Your task to perform on an android device: open app "Spotify" (install if not already installed) and go to login screen Image 0: 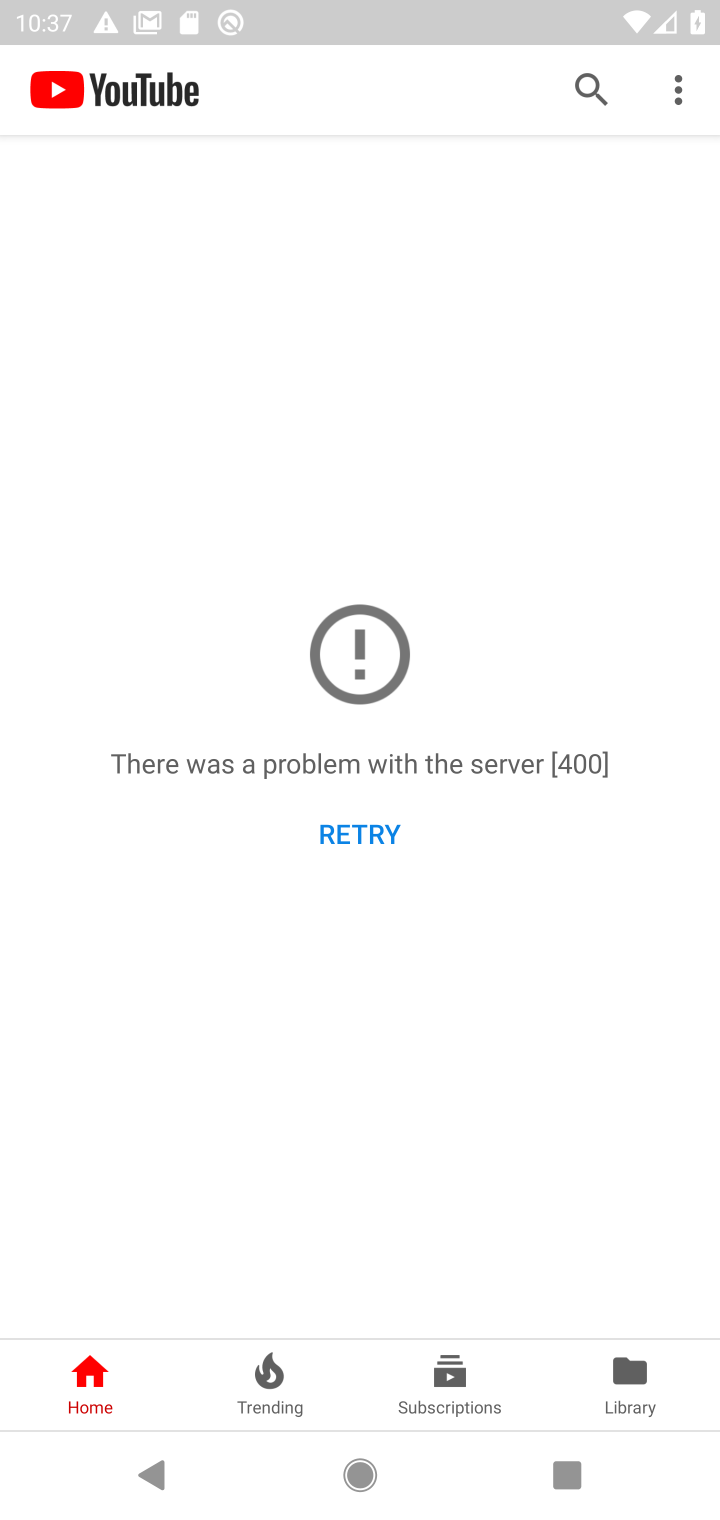
Step 0: press home button
Your task to perform on an android device: open app "Spotify" (install if not already installed) and go to login screen Image 1: 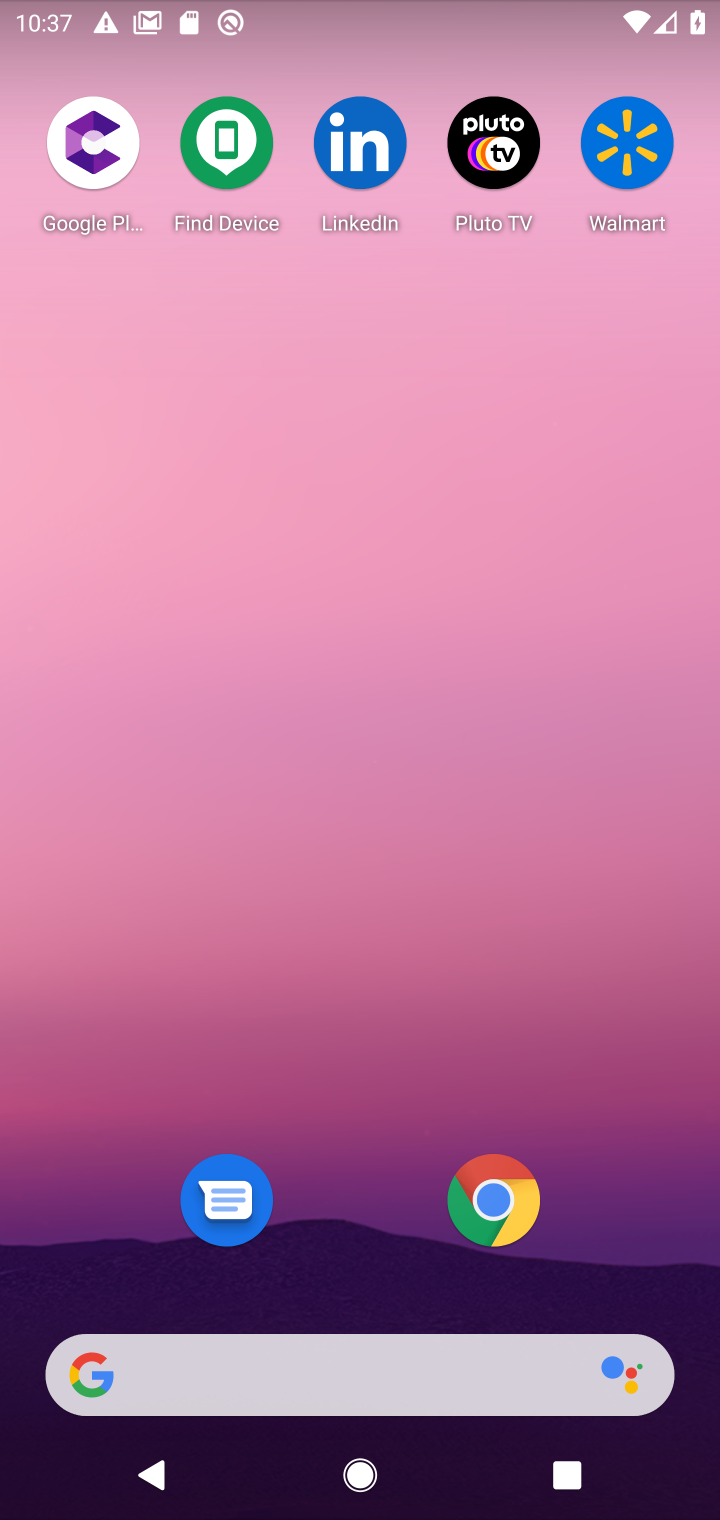
Step 1: drag from (360, 1291) to (288, 65)
Your task to perform on an android device: open app "Spotify" (install if not already installed) and go to login screen Image 2: 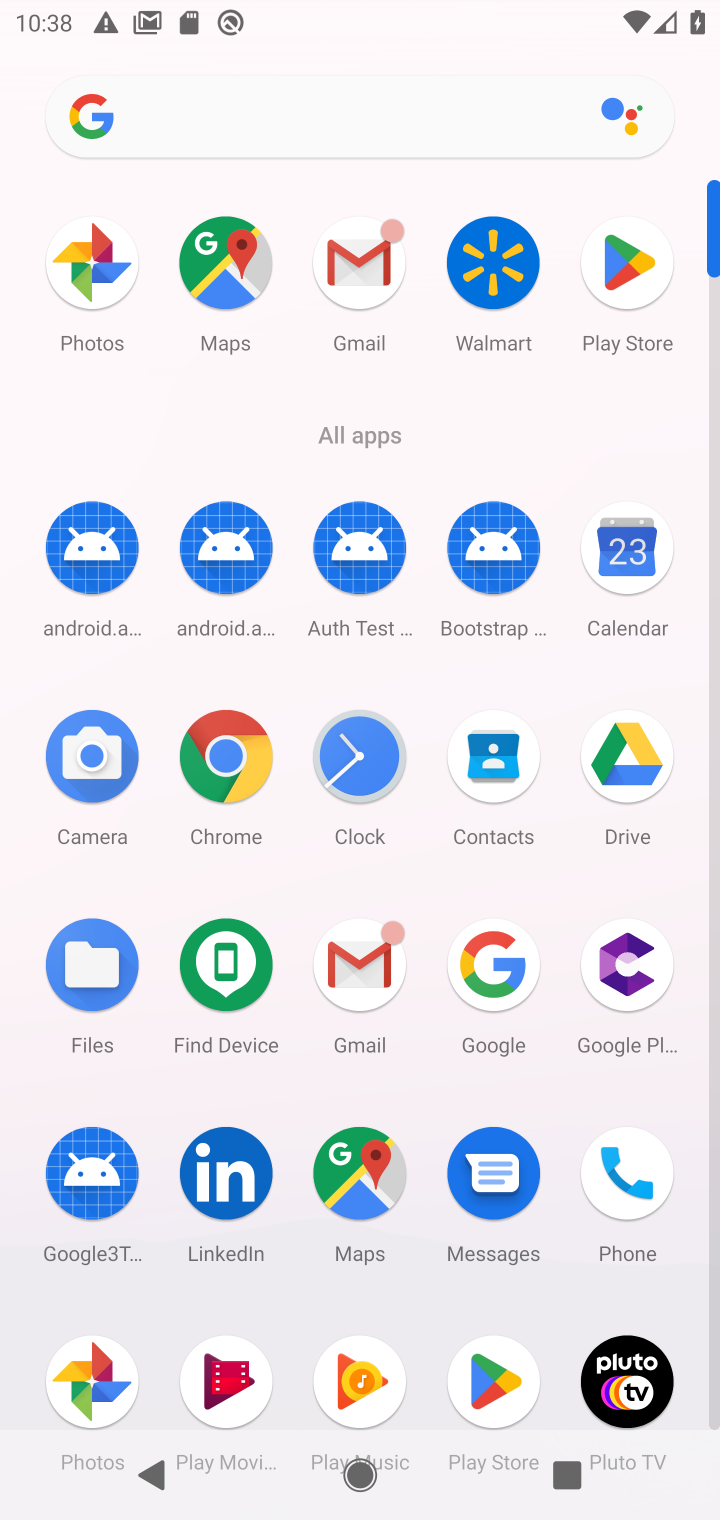
Step 2: click (499, 1362)
Your task to perform on an android device: open app "Spotify" (install if not already installed) and go to login screen Image 3: 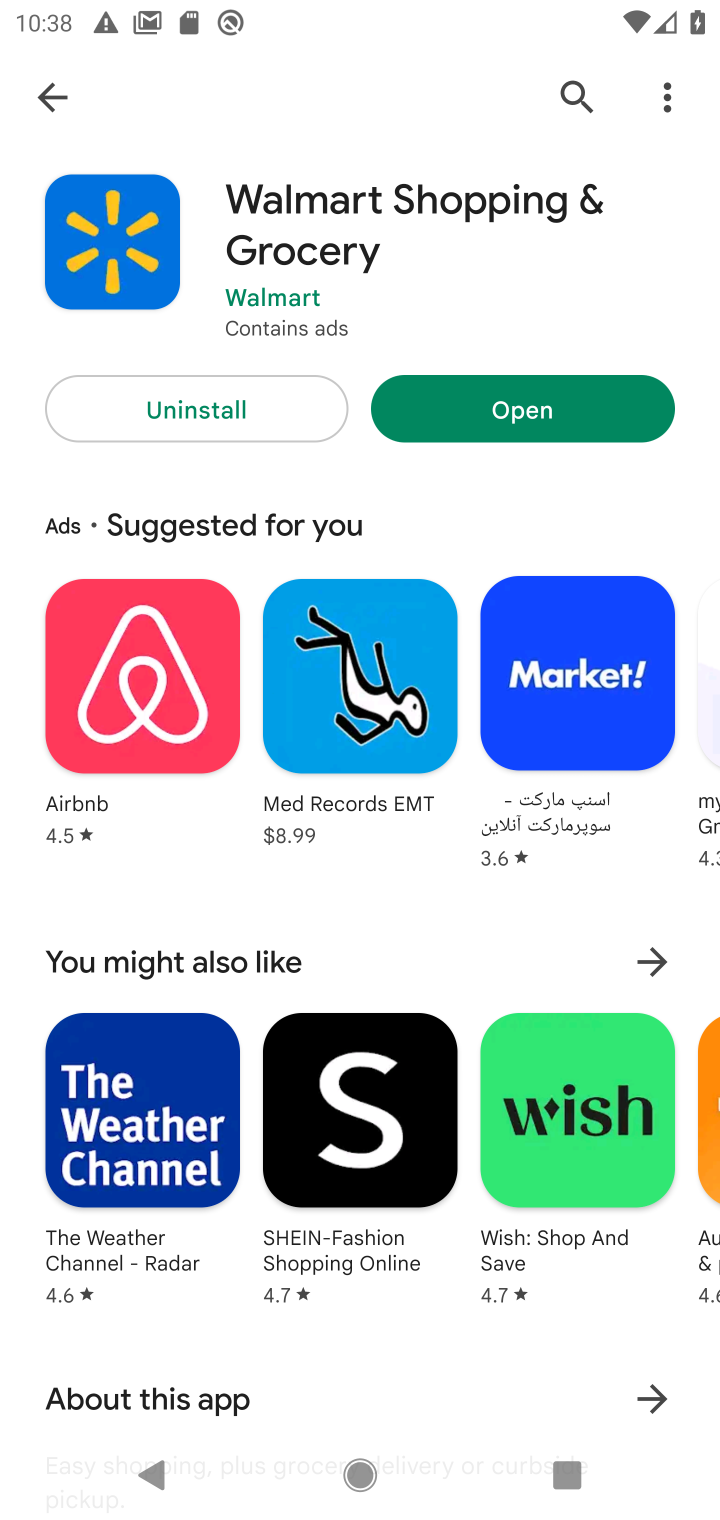
Step 3: click (103, 88)
Your task to perform on an android device: open app "Spotify" (install if not already installed) and go to login screen Image 4: 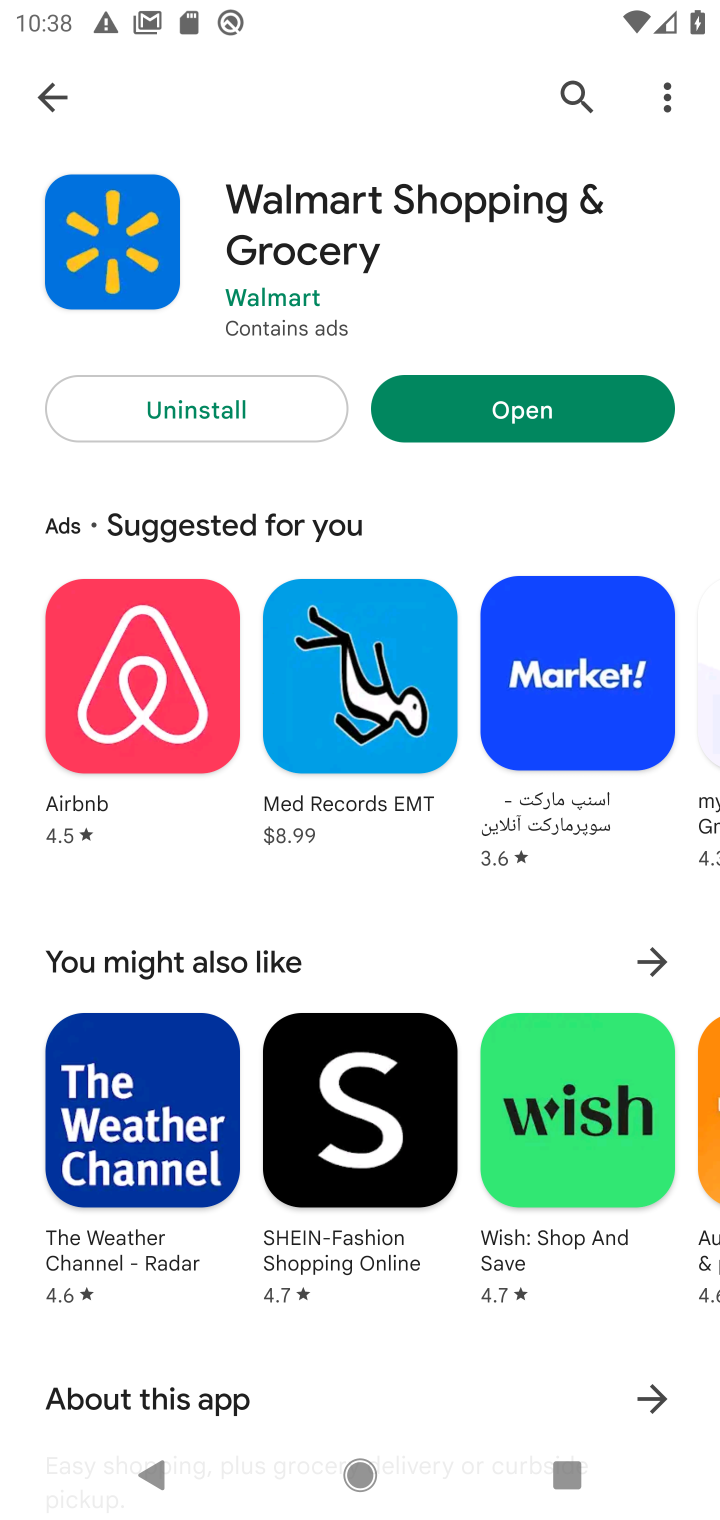
Step 4: click (65, 90)
Your task to perform on an android device: open app "Spotify" (install if not already installed) and go to login screen Image 5: 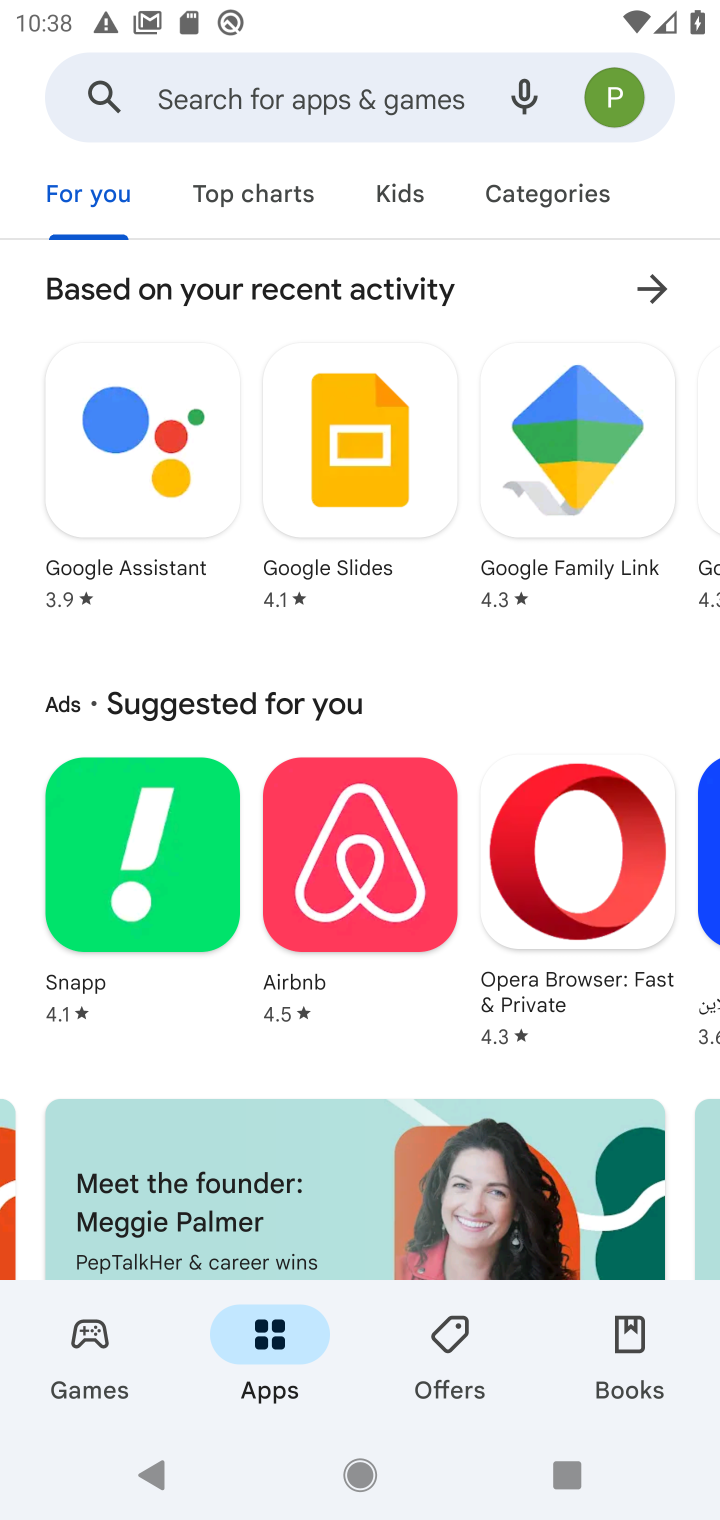
Step 5: click (181, 119)
Your task to perform on an android device: open app "Spotify" (install if not already installed) and go to login screen Image 6: 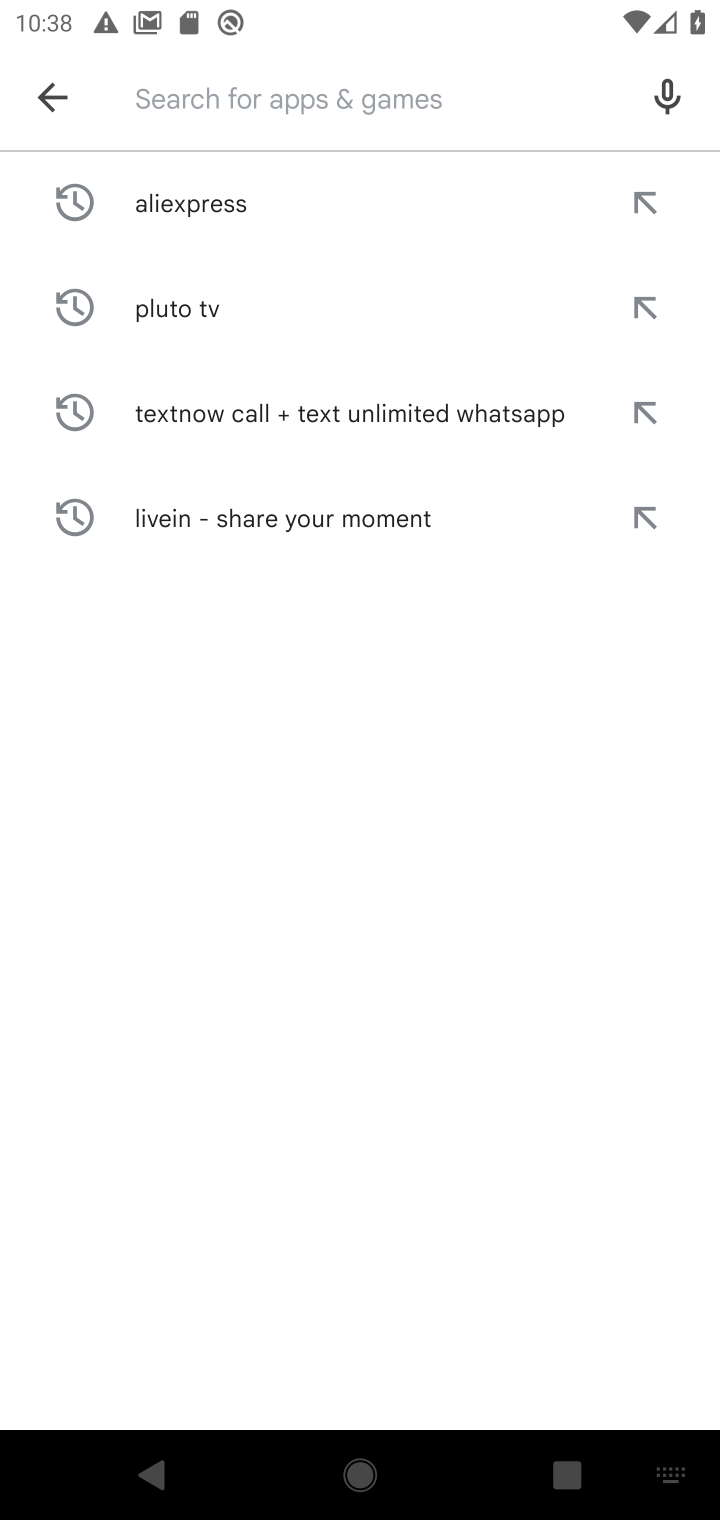
Step 6: type "Spotify"
Your task to perform on an android device: open app "Spotify" (install if not already installed) and go to login screen Image 7: 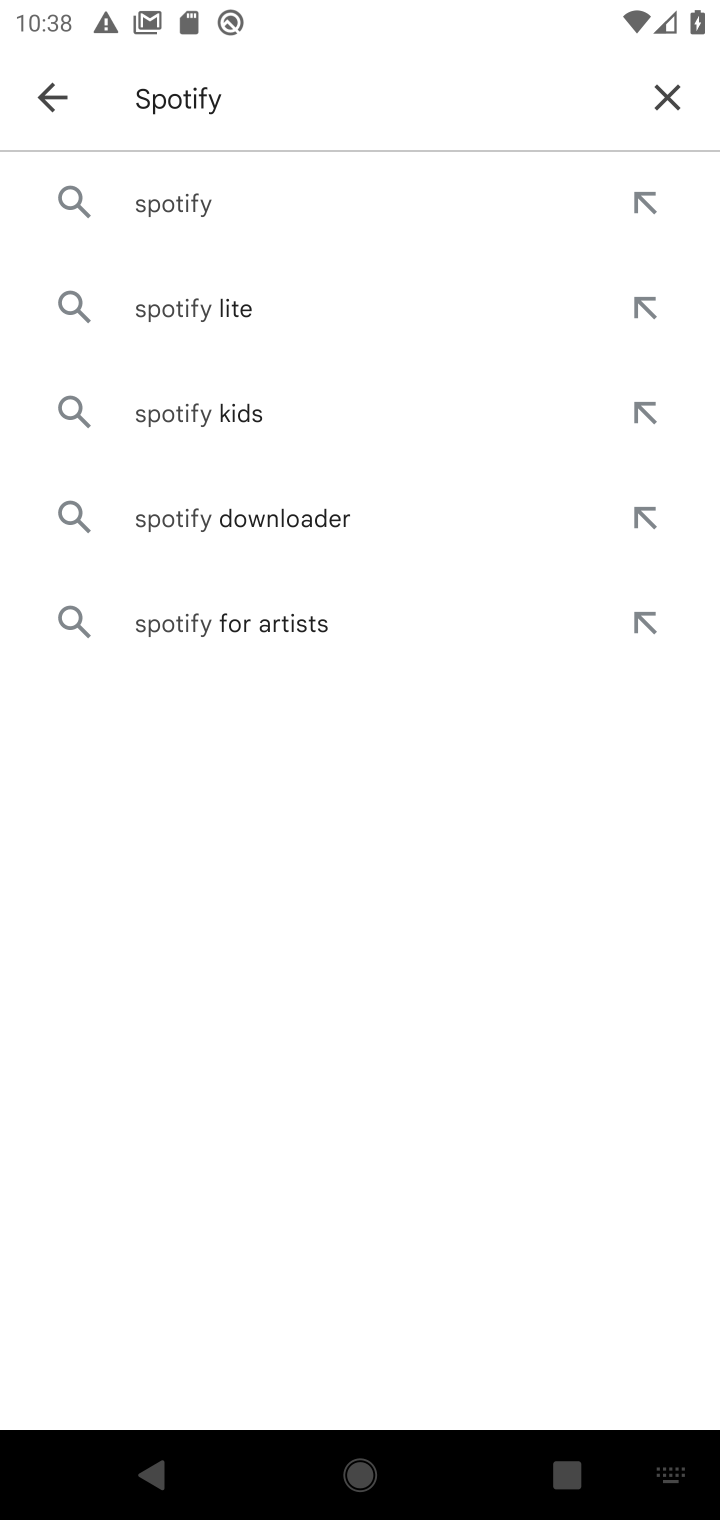
Step 7: click (156, 202)
Your task to perform on an android device: open app "Spotify" (install if not already installed) and go to login screen Image 8: 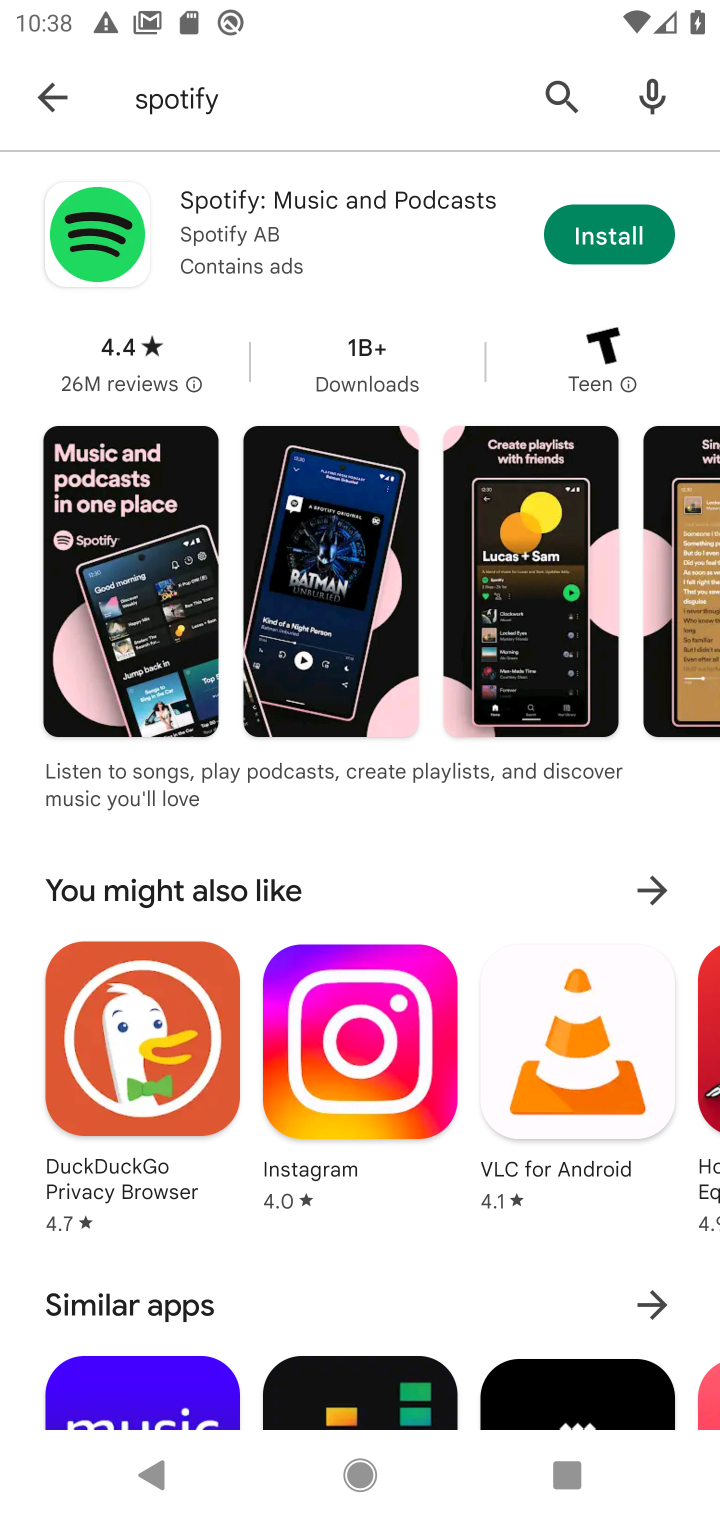
Step 8: click (569, 219)
Your task to perform on an android device: open app "Spotify" (install if not already installed) and go to login screen Image 9: 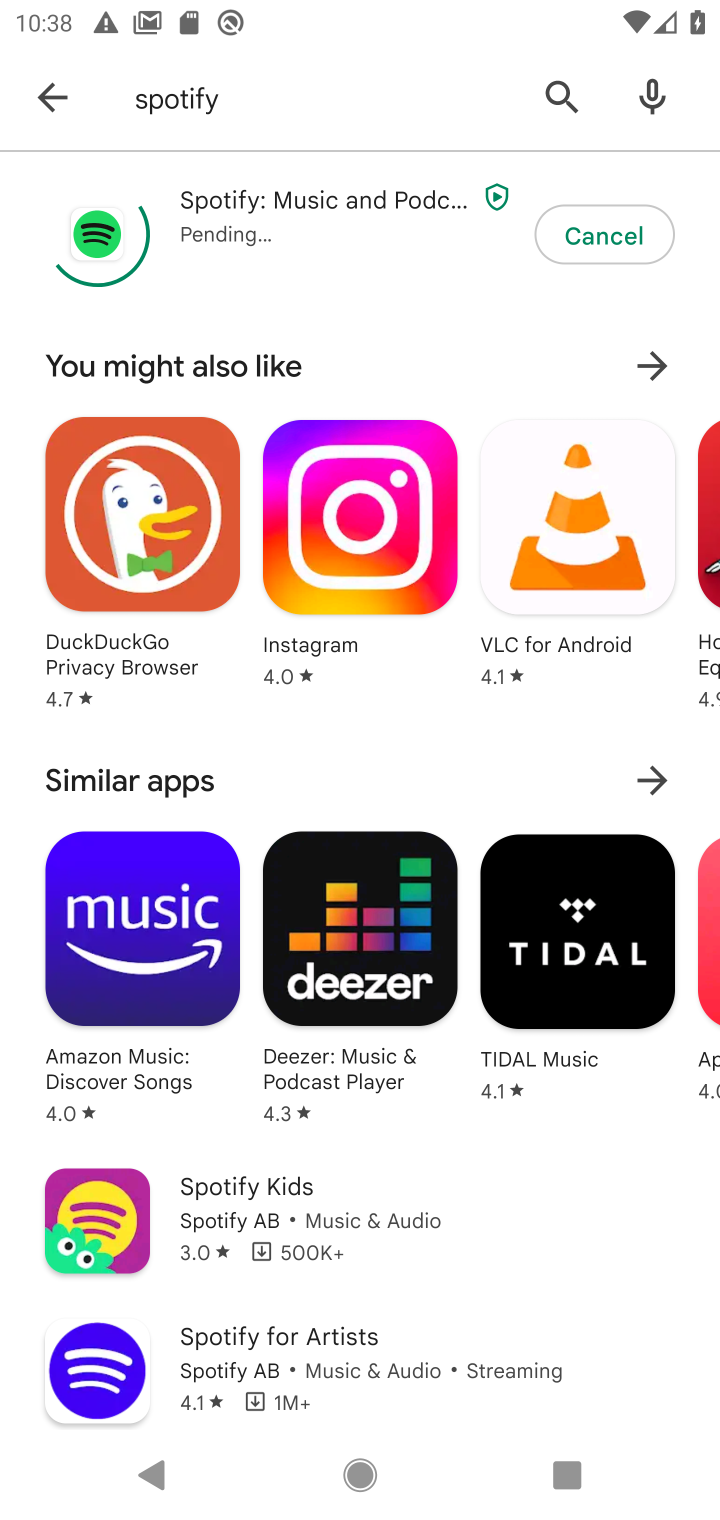
Step 9: click (569, 219)
Your task to perform on an android device: open app "Spotify" (install if not already installed) and go to login screen Image 10: 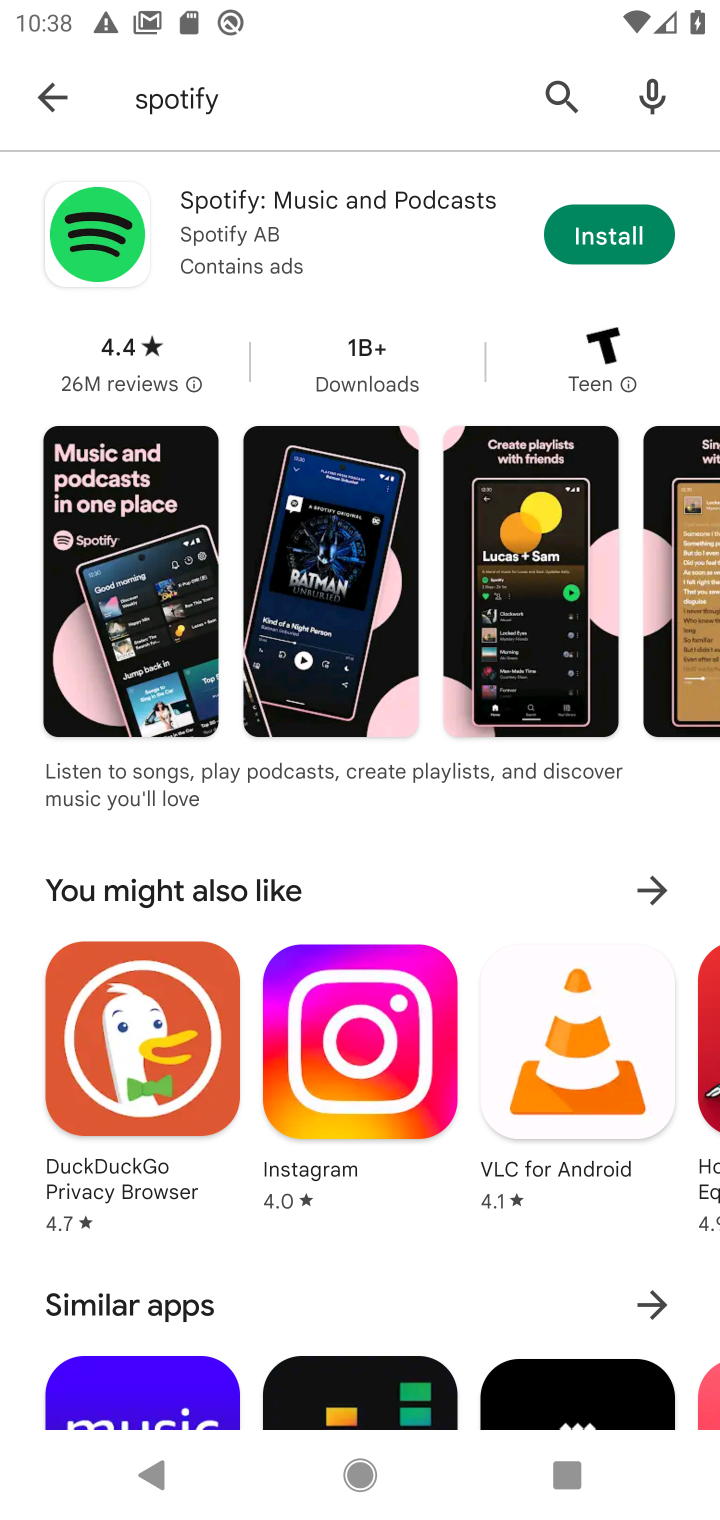
Step 10: click (600, 225)
Your task to perform on an android device: open app "Spotify" (install if not already installed) and go to login screen Image 11: 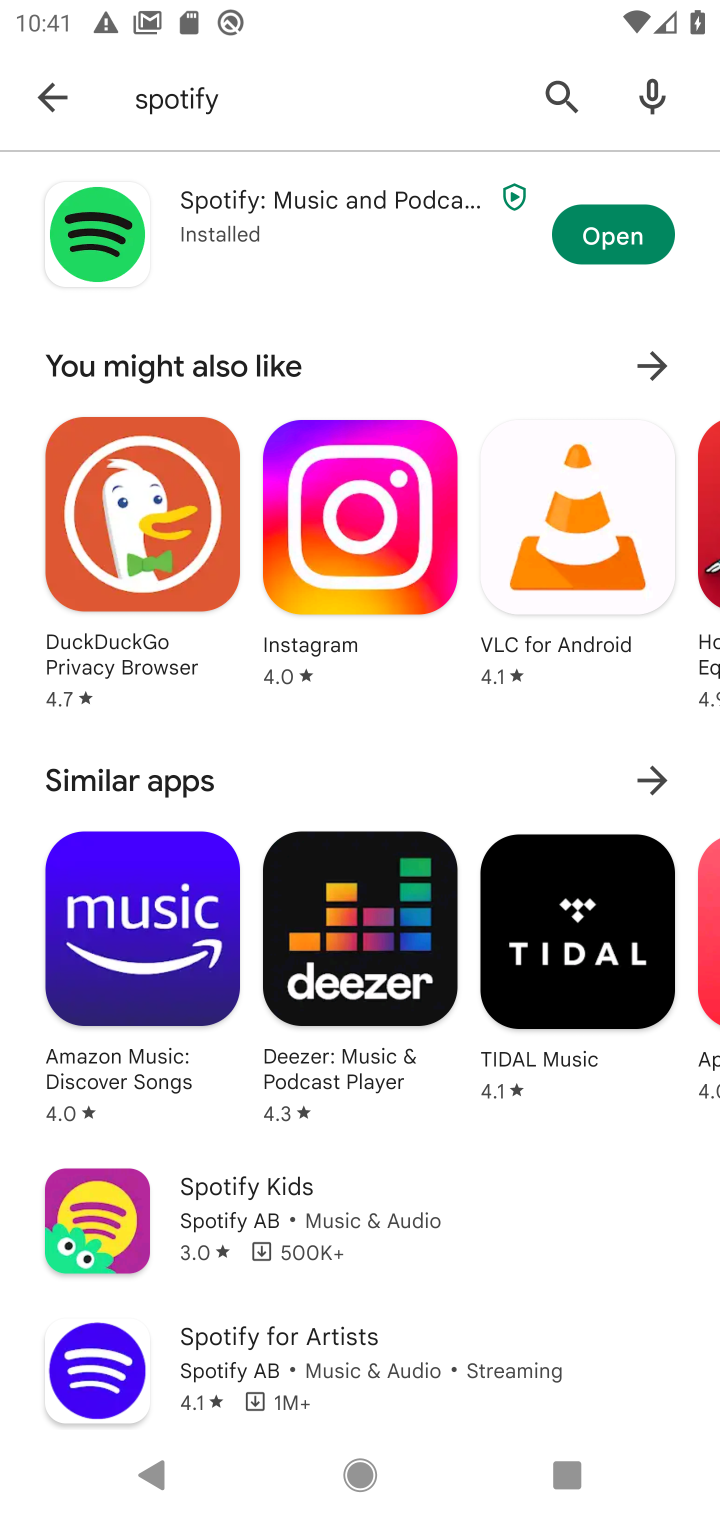
Step 11: click (601, 233)
Your task to perform on an android device: open app "Spotify" (install if not already installed) and go to login screen Image 12: 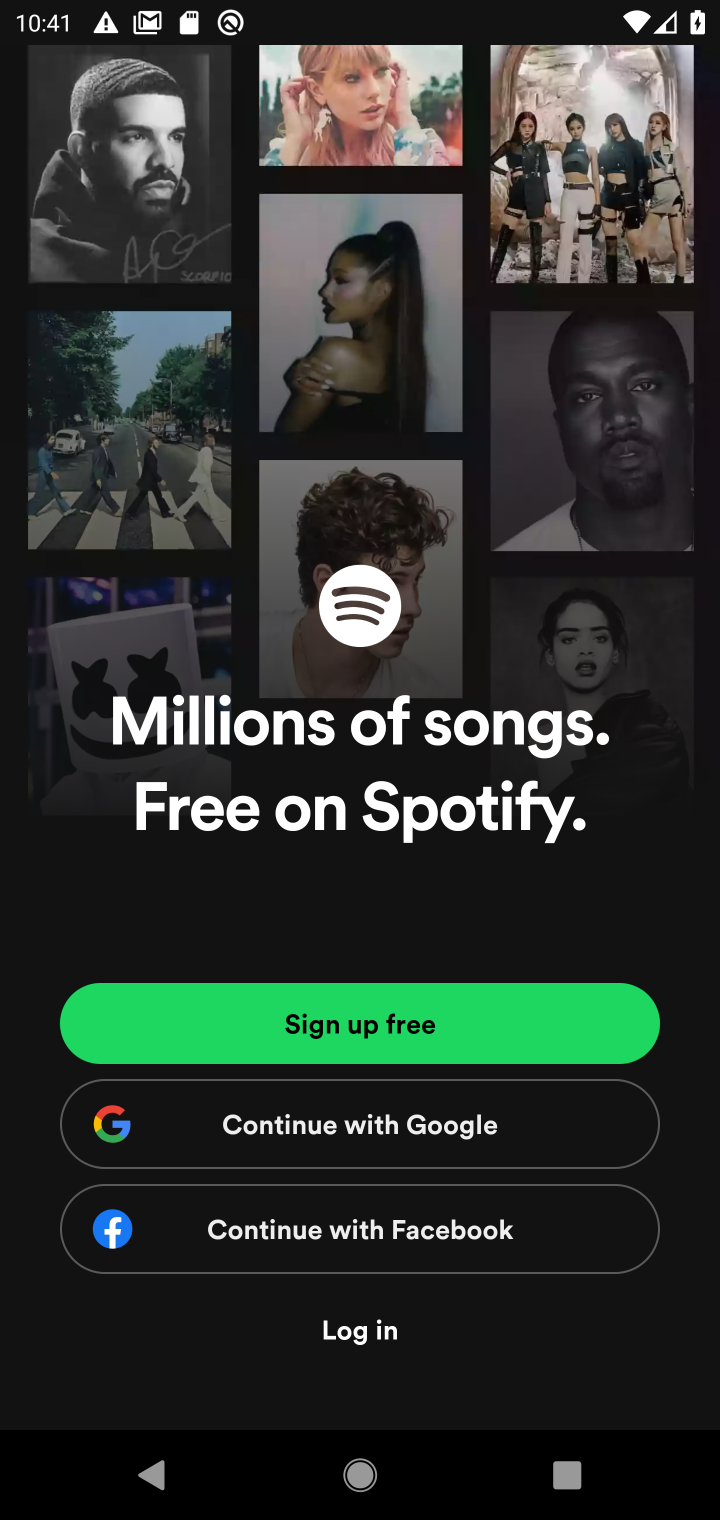
Step 12: click (333, 1322)
Your task to perform on an android device: open app "Spotify" (install if not already installed) and go to login screen Image 13: 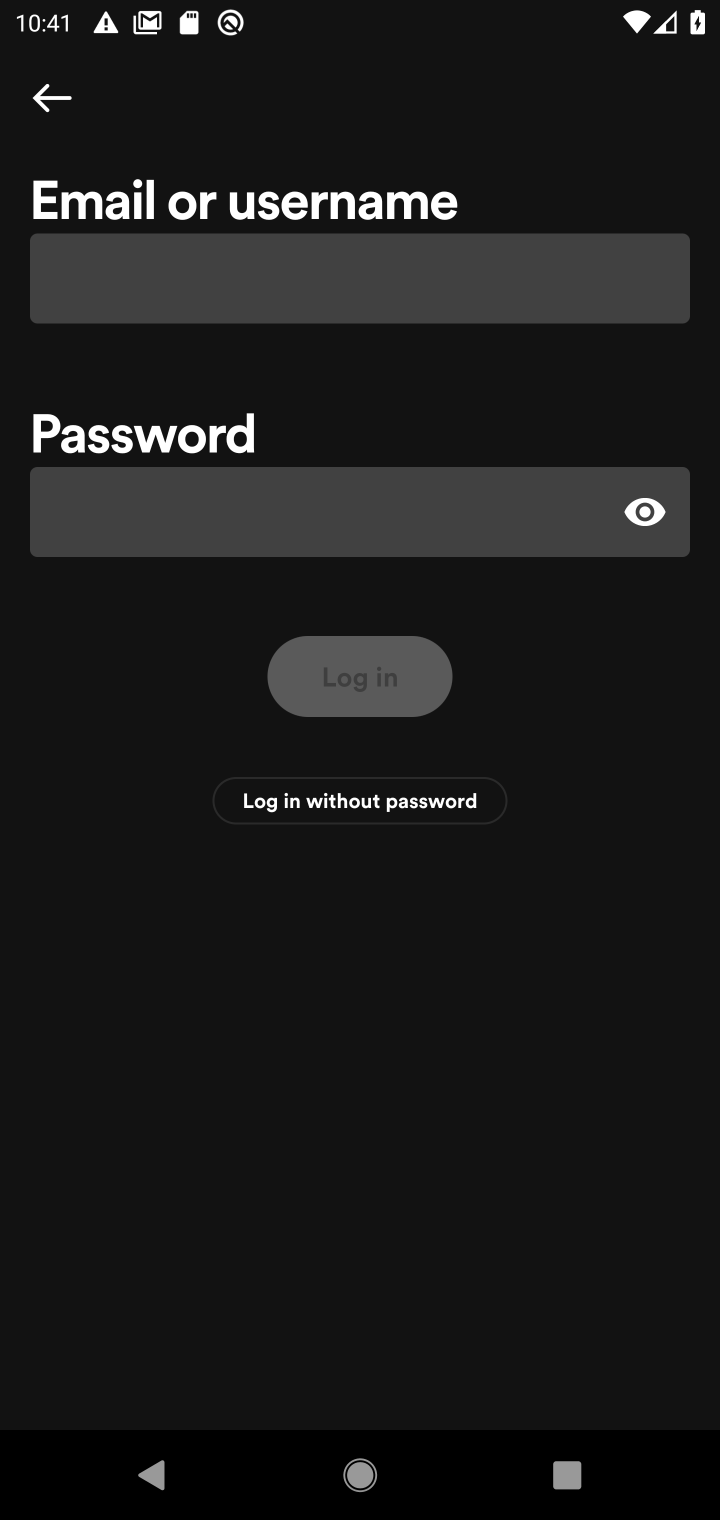
Step 13: task complete